Your task to perform on an android device: Open calendar and show me the second week of next month Image 0: 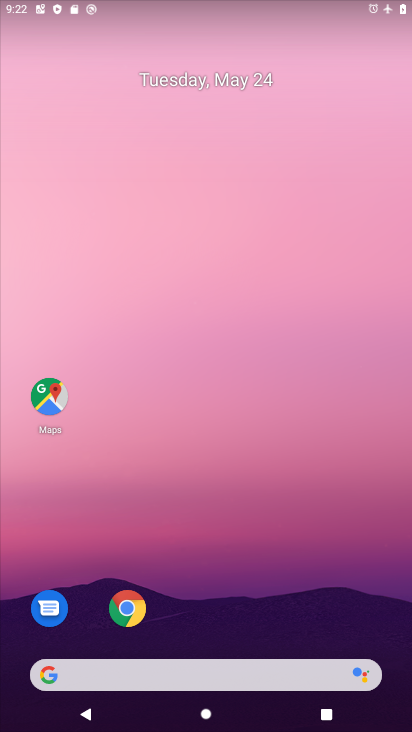
Step 0: drag from (221, 610) to (222, 1)
Your task to perform on an android device: Open calendar and show me the second week of next month Image 1: 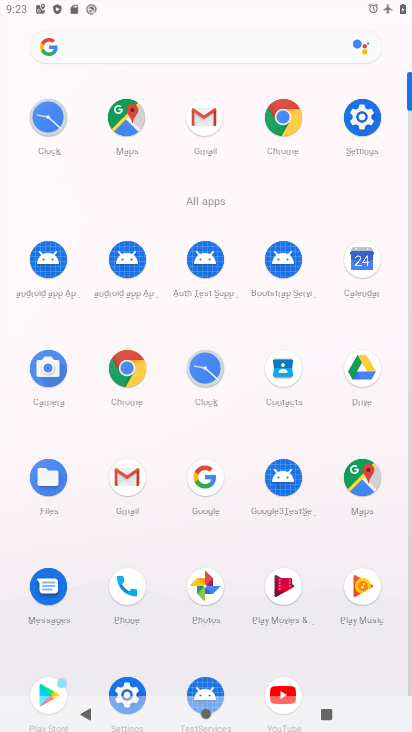
Step 1: click (352, 272)
Your task to perform on an android device: Open calendar and show me the second week of next month Image 2: 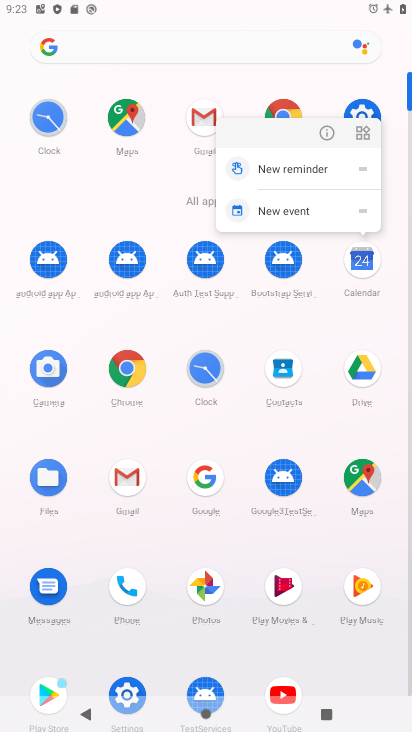
Step 2: click (359, 275)
Your task to perform on an android device: Open calendar and show me the second week of next month Image 3: 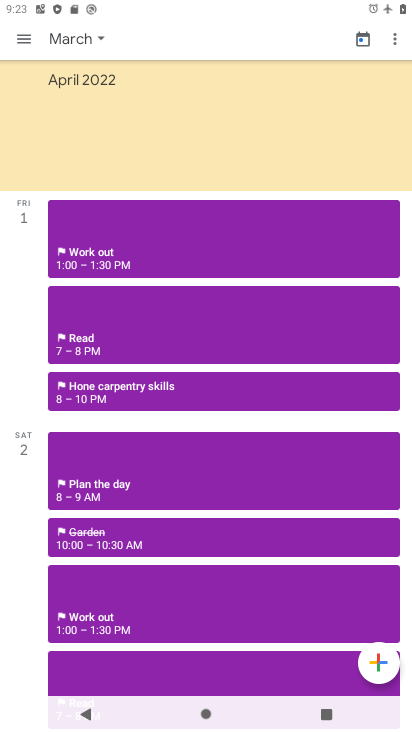
Step 3: click (25, 41)
Your task to perform on an android device: Open calendar and show me the second week of next month Image 4: 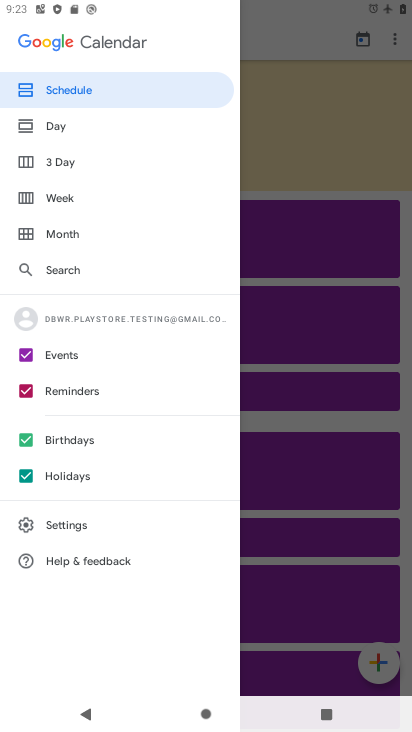
Step 4: click (78, 208)
Your task to perform on an android device: Open calendar and show me the second week of next month Image 5: 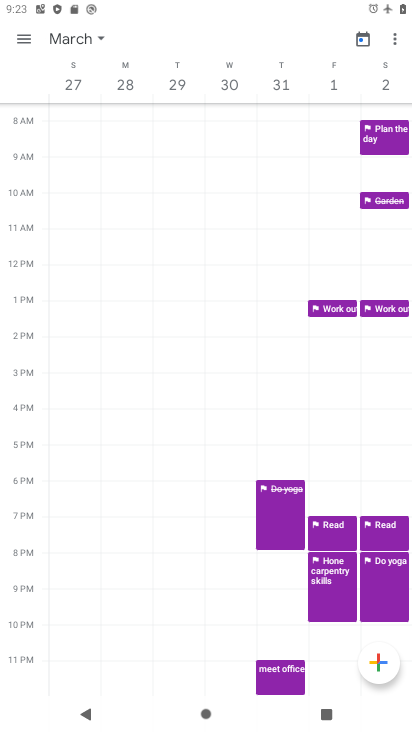
Step 5: drag from (345, 89) to (37, 85)
Your task to perform on an android device: Open calendar and show me the second week of next month Image 6: 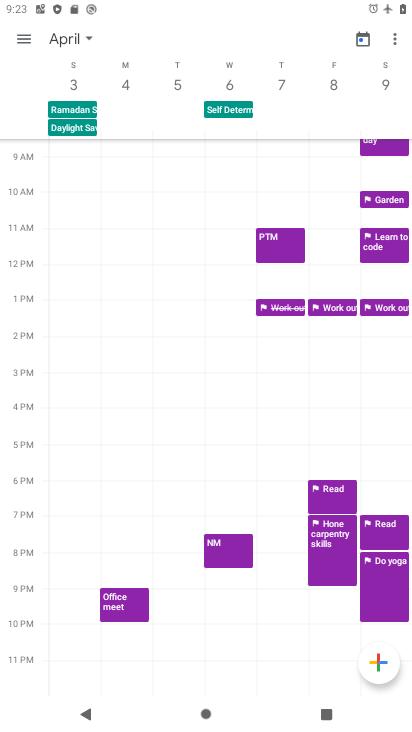
Step 6: click (74, 28)
Your task to perform on an android device: Open calendar and show me the second week of next month Image 7: 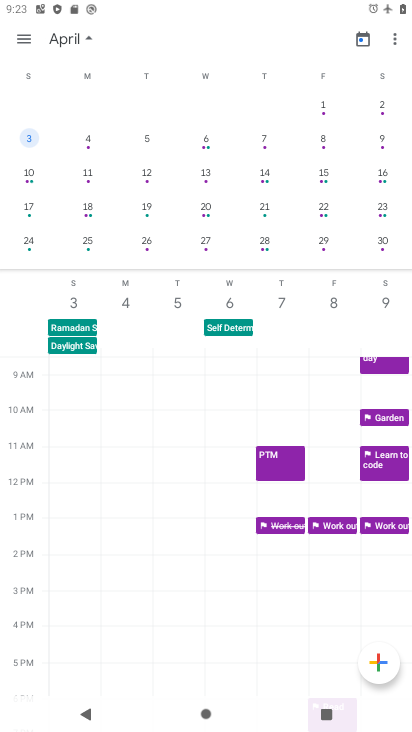
Step 7: drag from (333, 198) to (76, 191)
Your task to perform on an android device: Open calendar and show me the second week of next month Image 8: 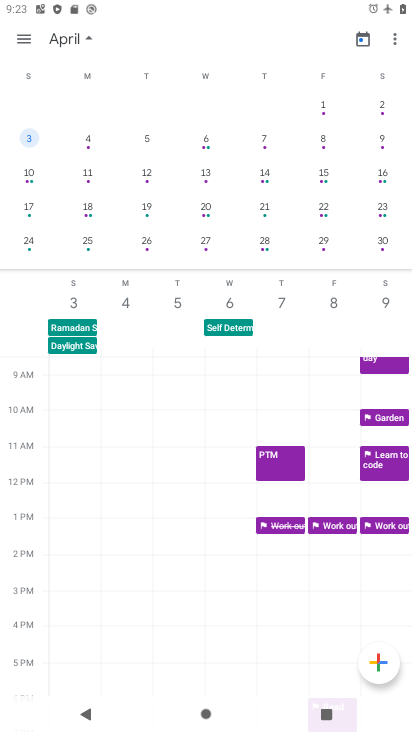
Step 8: drag from (378, 187) to (26, 281)
Your task to perform on an android device: Open calendar and show me the second week of next month Image 9: 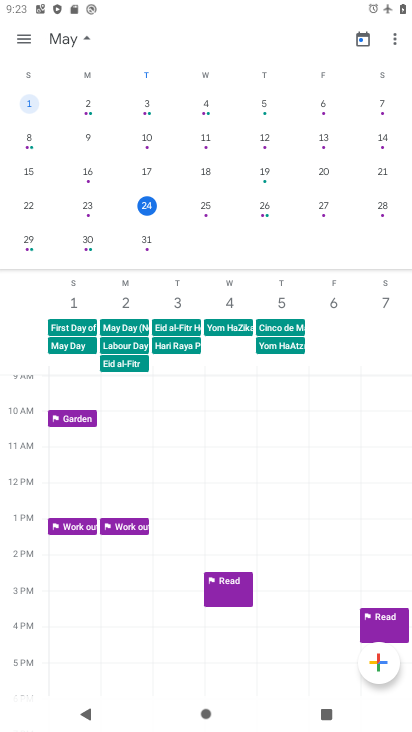
Step 9: drag from (375, 188) to (20, 101)
Your task to perform on an android device: Open calendar and show me the second week of next month Image 10: 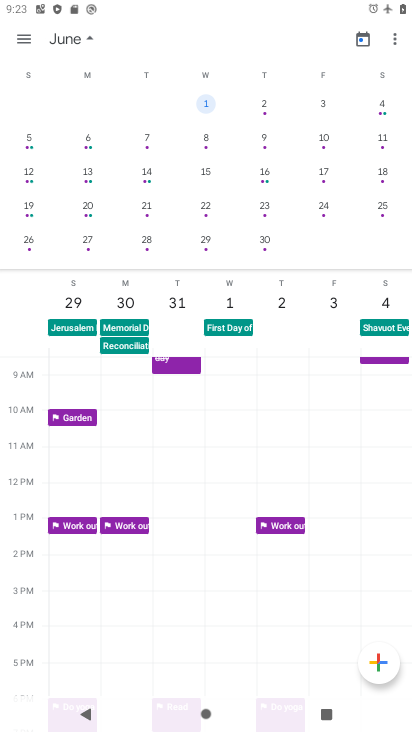
Step 10: click (391, 138)
Your task to perform on an android device: Open calendar and show me the second week of next month Image 11: 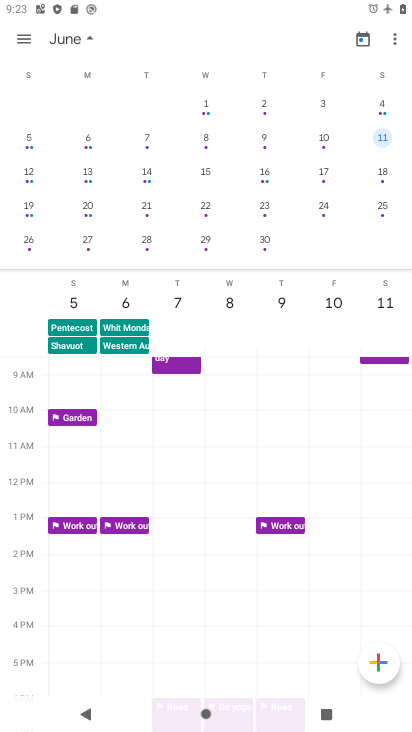
Step 11: click (22, 43)
Your task to perform on an android device: Open calendar and show me the second week of next month Image 12: 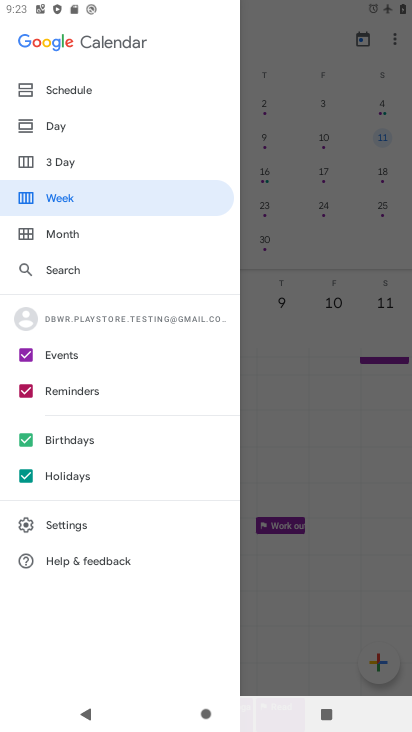
Step 12: click (88, 214)
Your task to perform on an android device: Open calendar and show me the second week of next month Image 13: 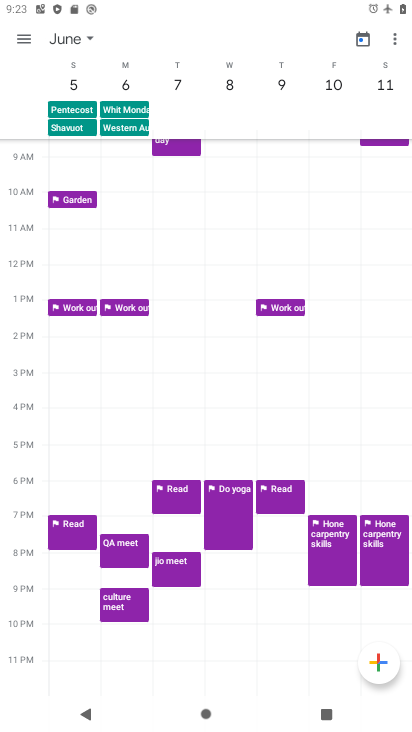
Step 13: task complete